Your task to perform on an android device: add a contact Image 0: 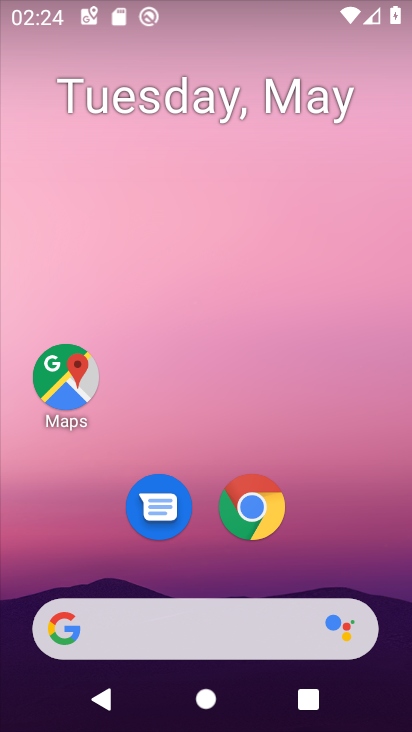
Step 0: drag from (199, 567) to (200, 307)
Your task to perform on an android device: add a contact Image 1: 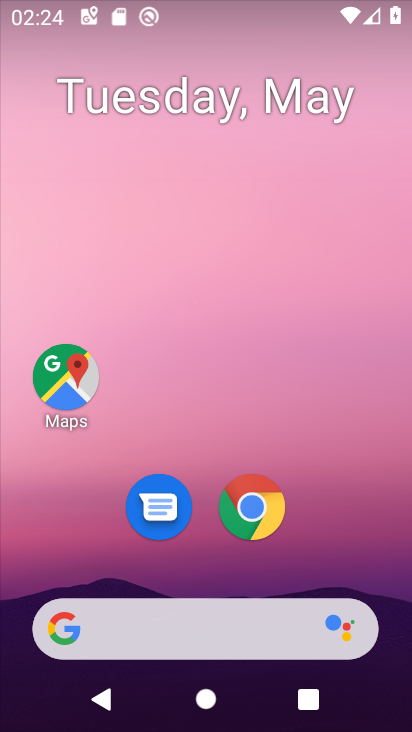
Step 1: drag from (214, 577) to (181, 300)
Your task to perform on an android device: add a contact Image 2: 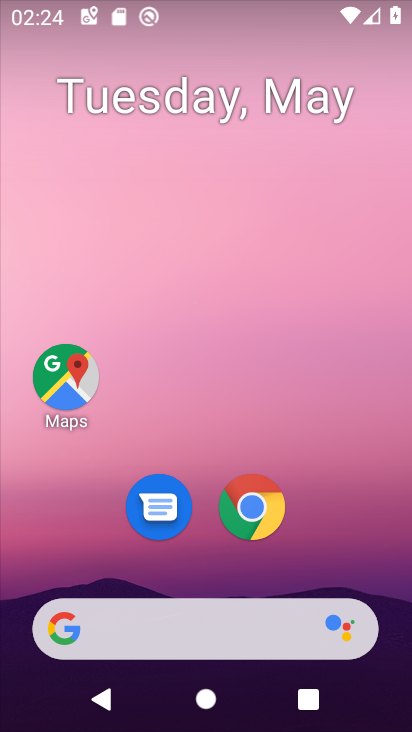
Step 2: drag from (205, 556) to (193, 239)
Your task to perform on an android device: add a contact Image 3: 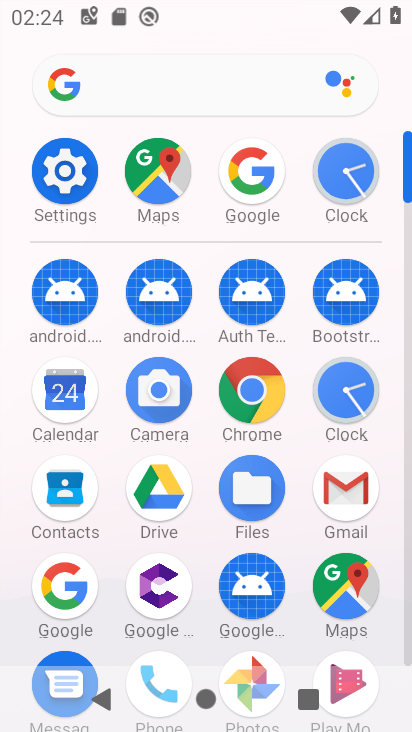
Step 3: click (74, 500)
Your task to perform on an android device: add a contact Image 4: 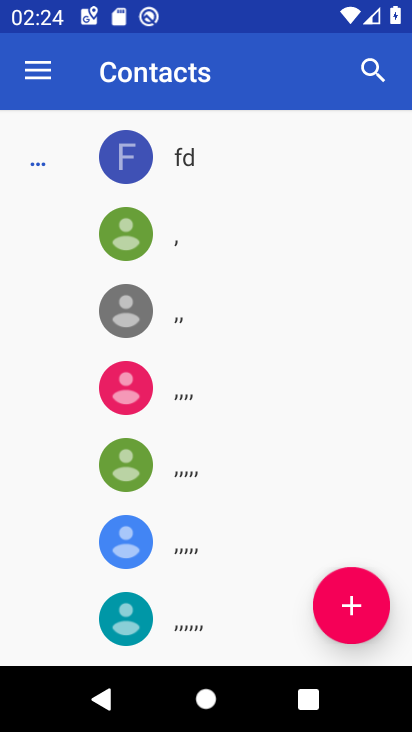
Step 4: click (335, 605)
Your task to perform on an android device: add a contact Image 5: 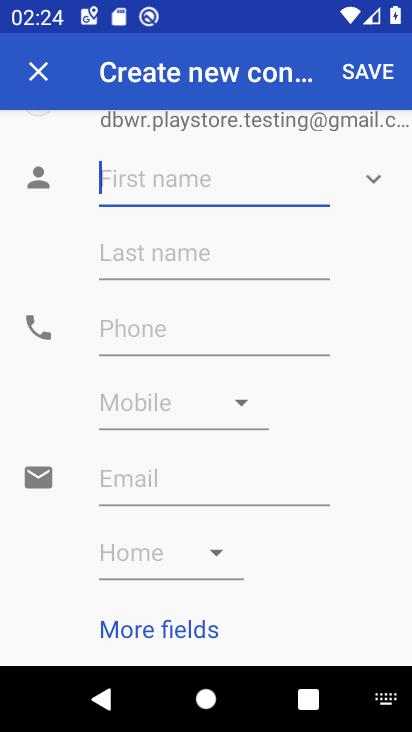
Step 5: type "dfbdf"
Your task to perform on an android device: add a contact Image 6: 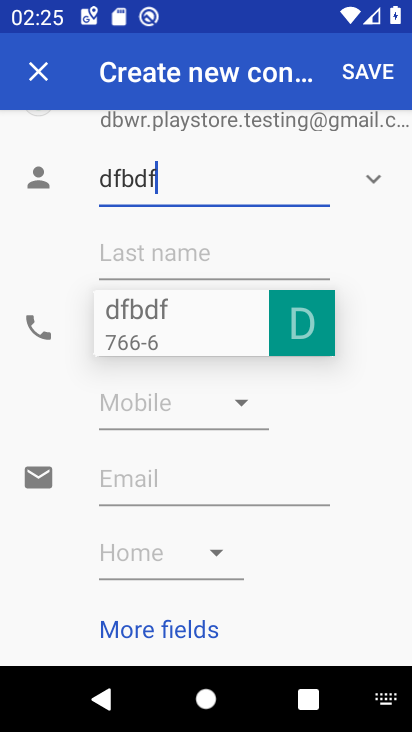
Step 6: type "hg"
Your task to perform on an android device: add a contact Image 7: 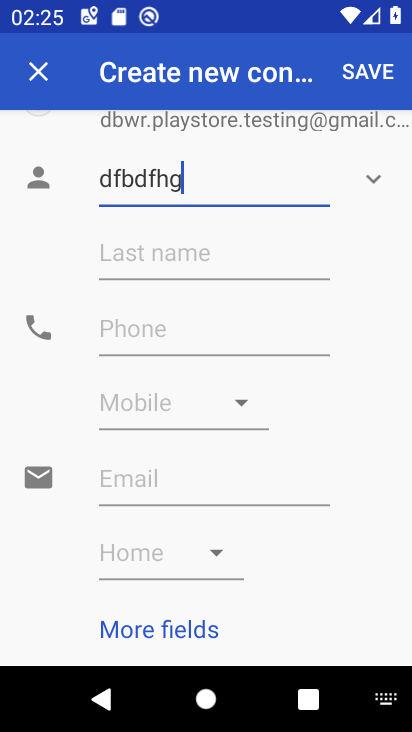
Step 7: type "gjg"
Your task to perform on an android device: add a contact Image 8: 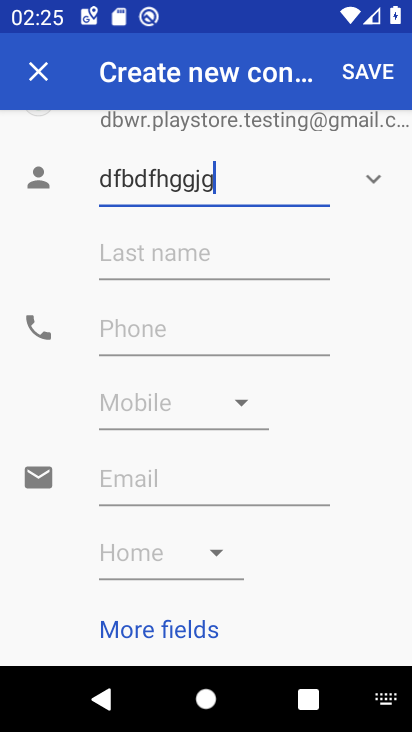
Step 8: click (151, 335)
Your task to perform on an android device: add a contact Image 9: 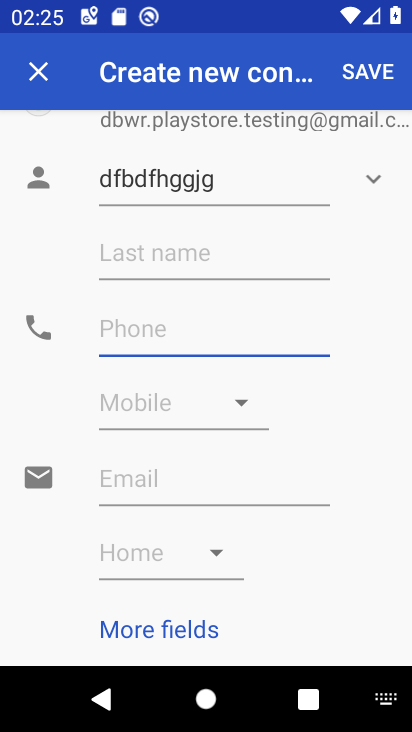
Step 9: type "5685678885"
Your task to perform on an android device: add a contact Image 10: 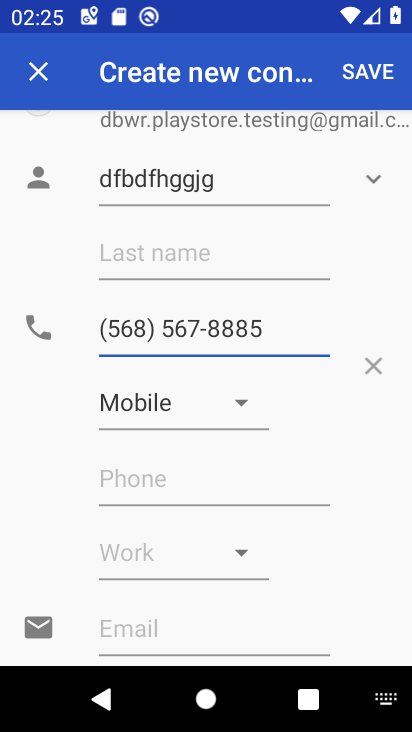
Step 10: click (384, 72)
Your task to perform on an android device: add a contact Image 11: 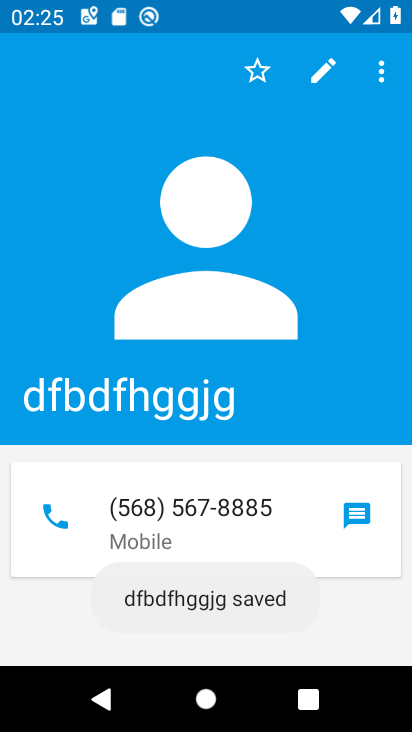
Step 11: task complete